Your task to perform on an android device: Open Android settings Image 0: 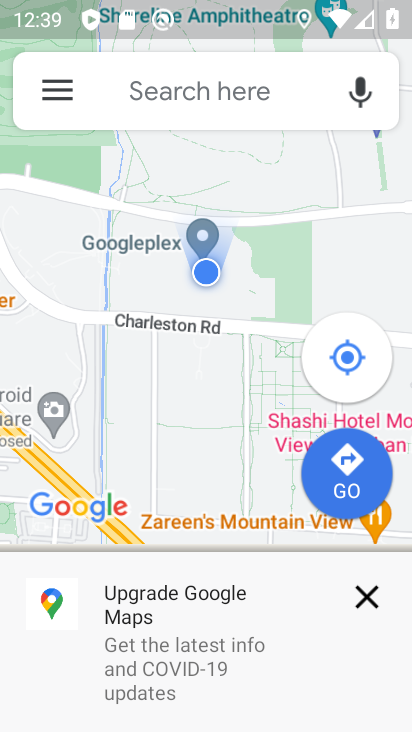
Step 0: press home button
Your task to perform on an android device: Open Android settings Image 1: 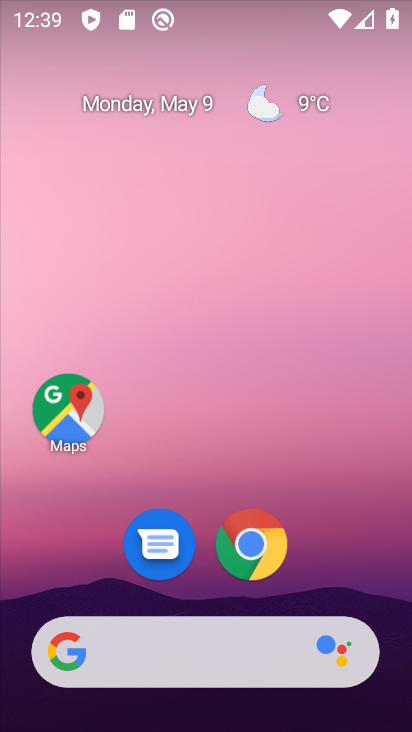
Step 1: drag from (344, 571) to (282, 122)
Your task to perform on an android device: Open Android settings Image 2: 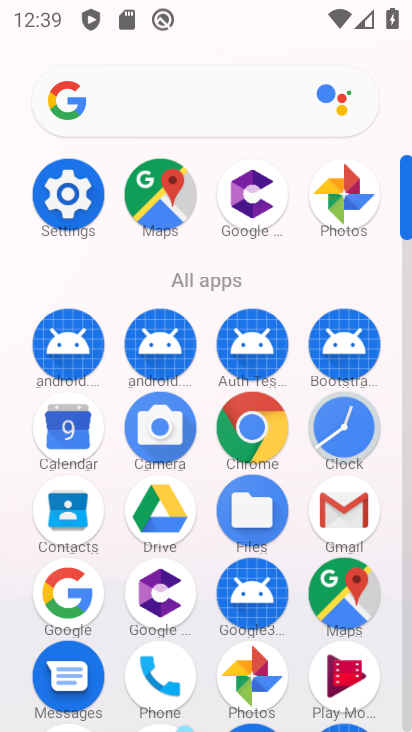
Step 2: click (79, 191)
Your task to perform on an android device: Open Android settings Image 3: 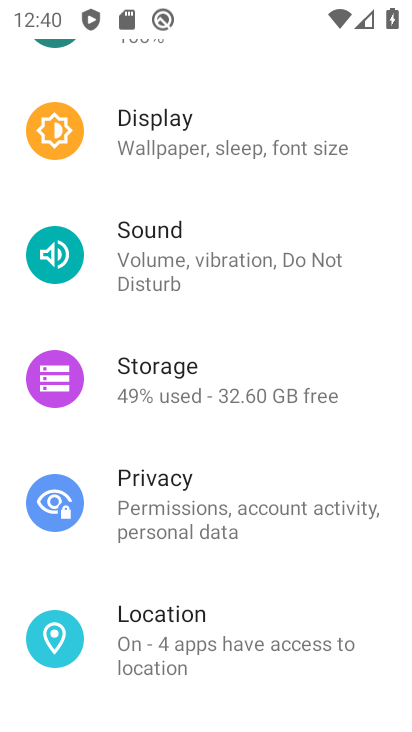
Step 3: task complete